Your task to perform on an android device: turn off notifications in google photos Image 0: 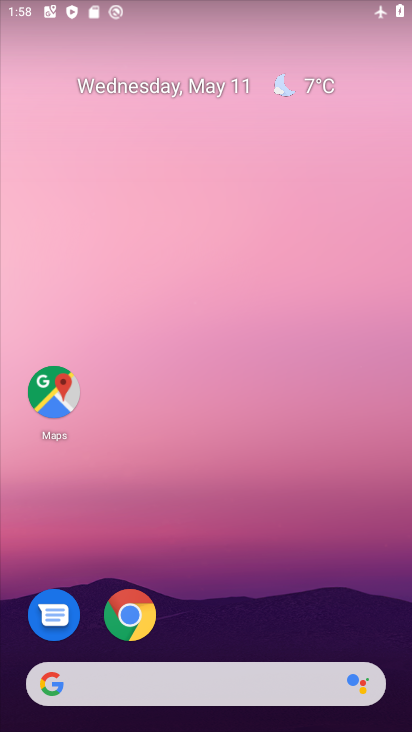
Step 0: drag from (285, 627) to (281, 217)
Your task to perform on an android device: turn off notifications in google photos Image 1: 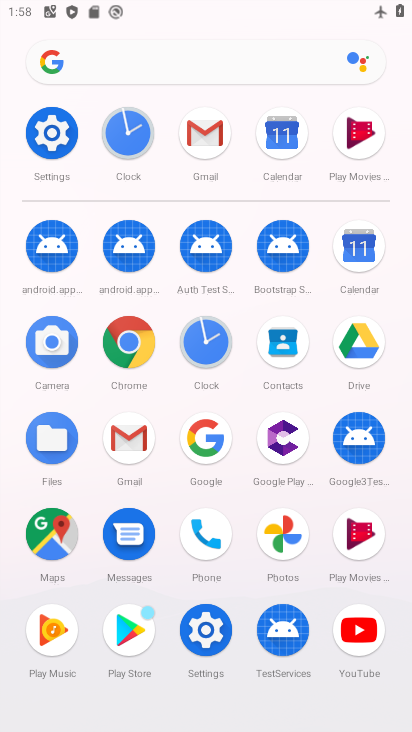
Step 1: click (276, 536)
Your task to perform on an android device: turn off notifications in google photos Image 2: 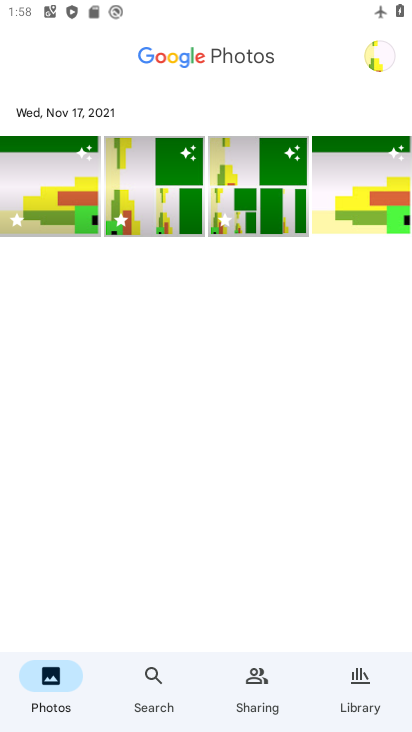
Step 2: click (387, 44)
Your task to perform on an android device: turn off notifications in google photos Image 3: 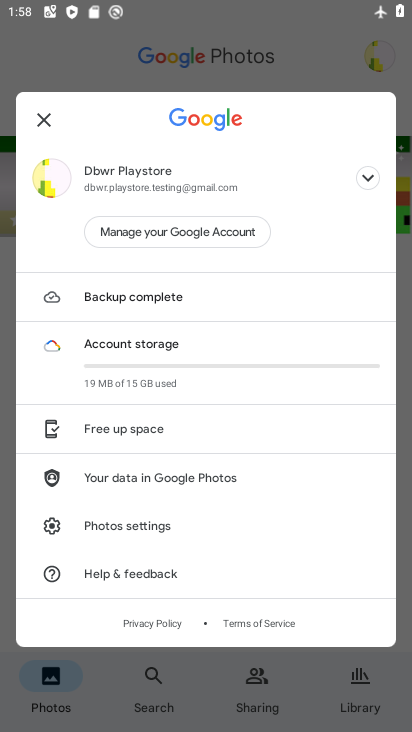
Step 3: click (151, 526)
Your task to perform on an android device: turn off notifications in google photos Image 4: 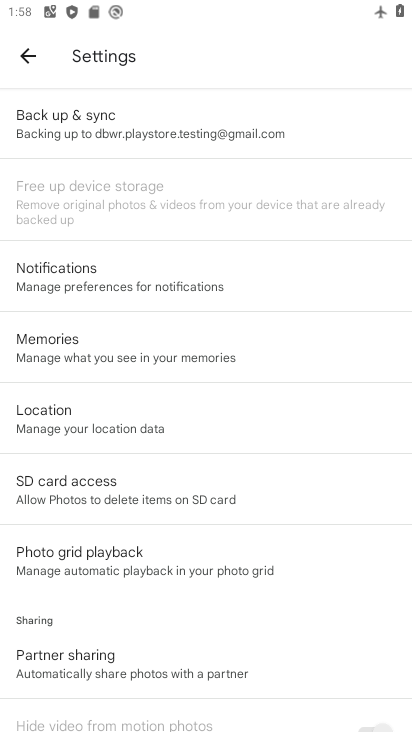
Step 4: click (159, 282)
Your task to perform on an android device: turn off notifications in google photos Image 5: 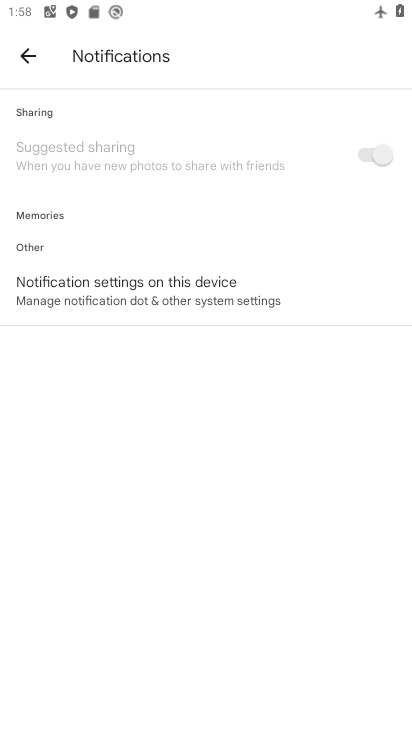
Step 5: click (205, 292)
Your task to perform on an android device: turn off notifications in google photos Image 6: 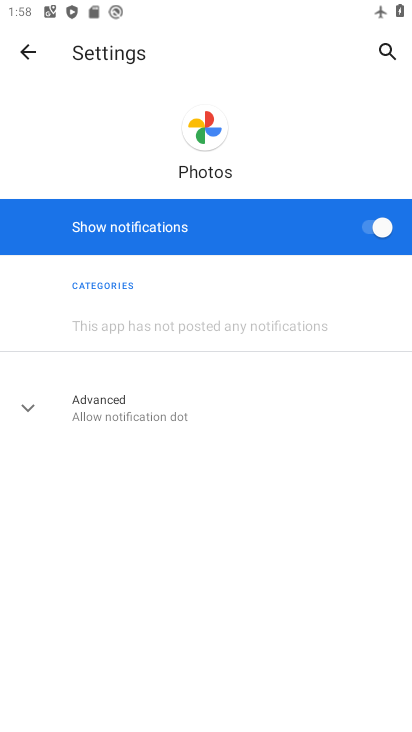
Step 6: click (373, 219)
Your task to perform on an android device: turn off notifications in google photos Image 7: 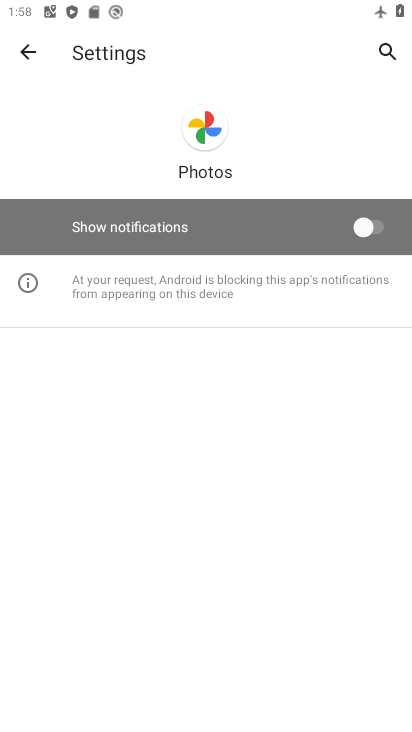
Step 7: task complete